Your task to perform on an android device: Open the map Image 0: 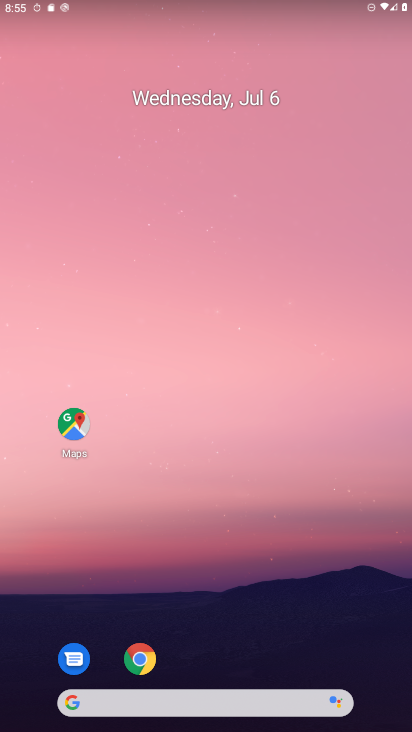
Step 0: drag from (341, 641) to (343, 133)
Your task to perform on an android device: Open the map Image 1: 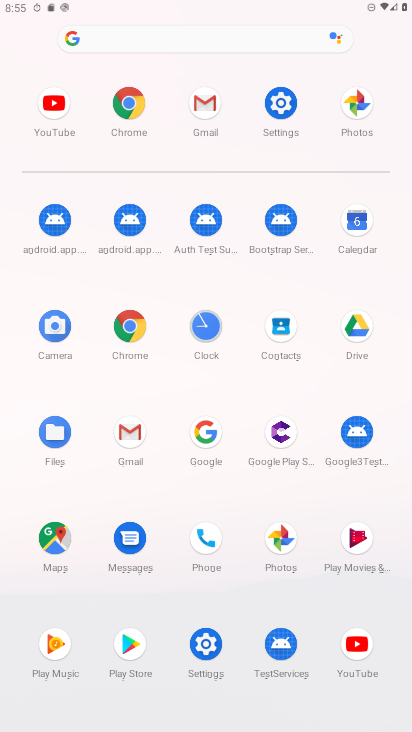
Step 1: click (60, 534)
Your task to perform on an android device: Open the map Image 2: 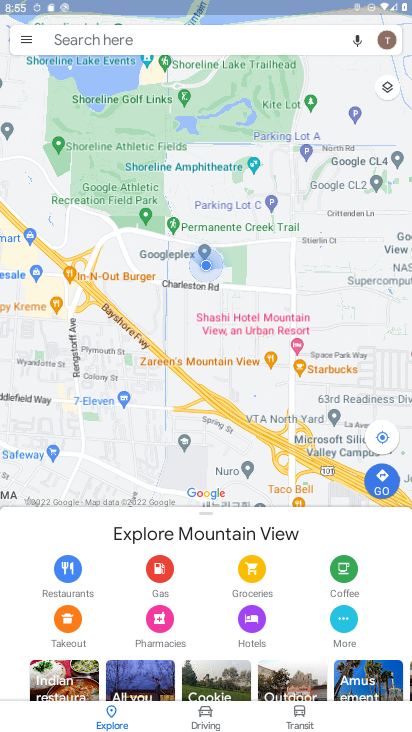
Step 2: task complete